Your task to perform on an android device: turn on airplane mode Image 0: 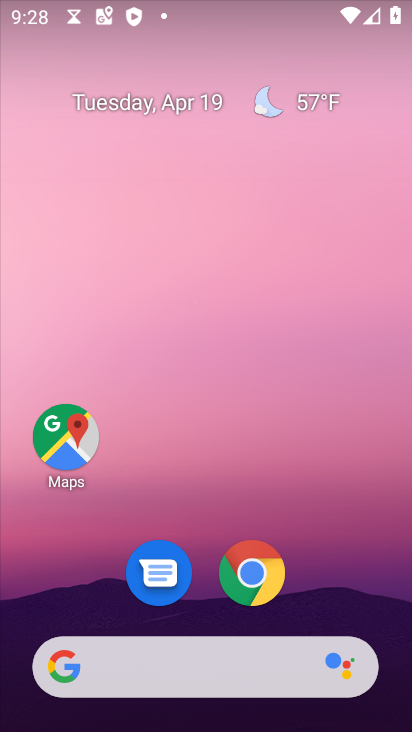
Step 0: click (266, 13)
Your task to perform on an android device: turn on airplane mode Image 1: 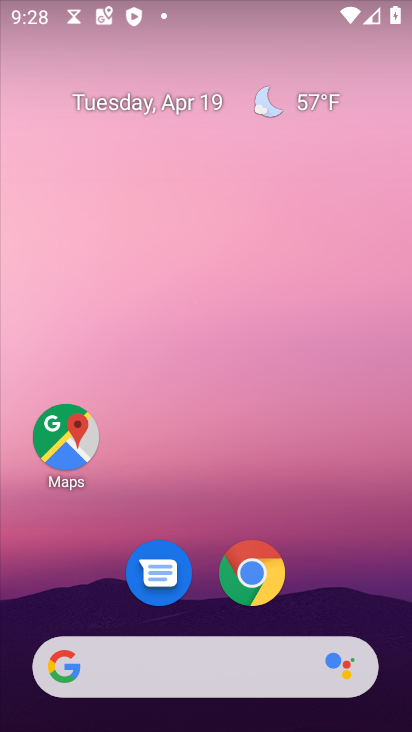
Step 1: drag from (311, 524) to (283, 121)
Your task to perform on an android device: turn on airplane mode Image 2: 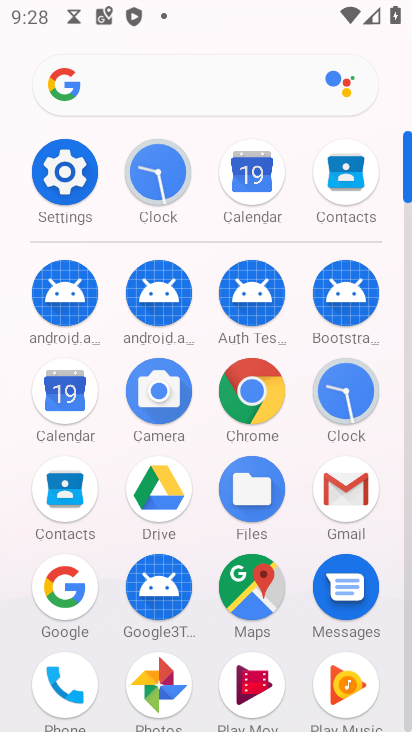
Step 2: click (65, 169)
Your task to perform on an android device: turn on airplane mode Image 3: 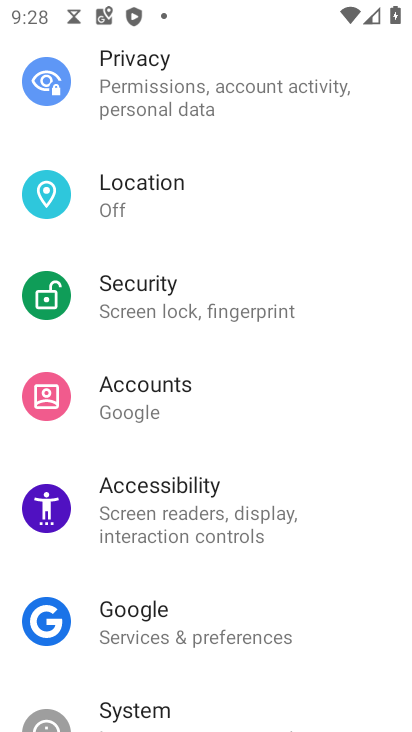
Step 3: drag from (315, 202) to (277, 558)
Your task to perform on an android device: turn on airplane mode Image 4: 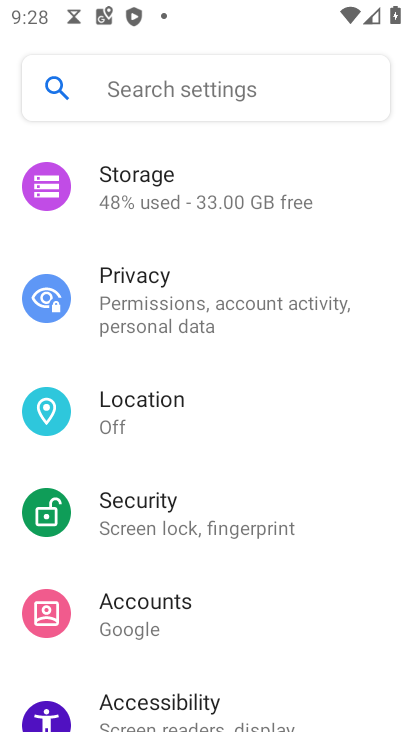
Step 4: drag from (243, 241) to (197, 571)
Your task to perform on an android device: turn on airplane mode Image 5: 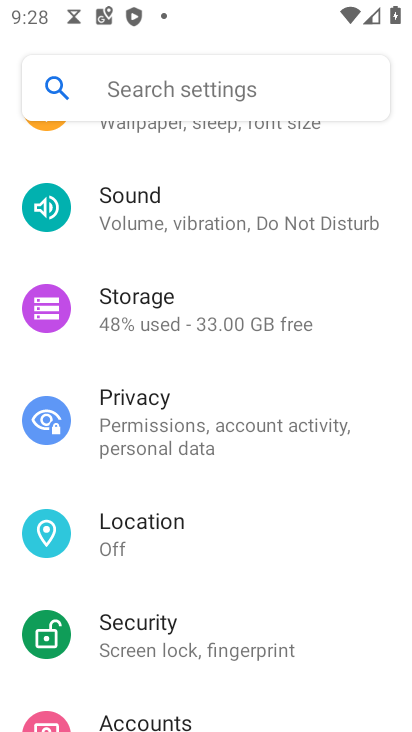
Step 5: drag from (227, 189) to (175, 652)
Your task to perform on an android device: turn on airplane mode Image 6: 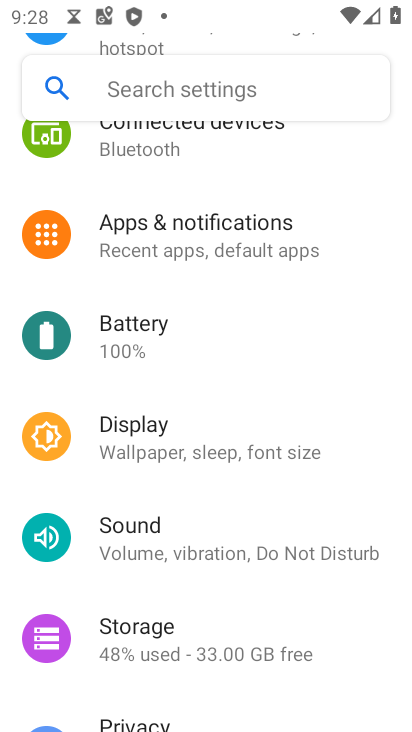
Step 6: drag from (206, 230) to (181, 610)
Your task to perform on an android device: turn on airplane mode Image 7: 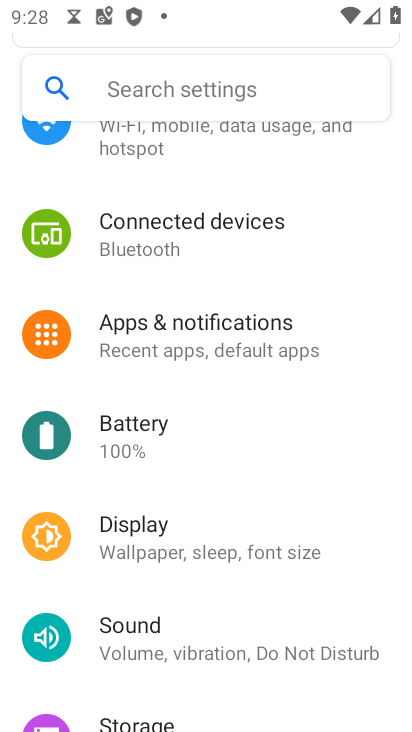
Step 7: click (216, 138)
Your task to perform on an android device: turn on airplane mode Image 8: 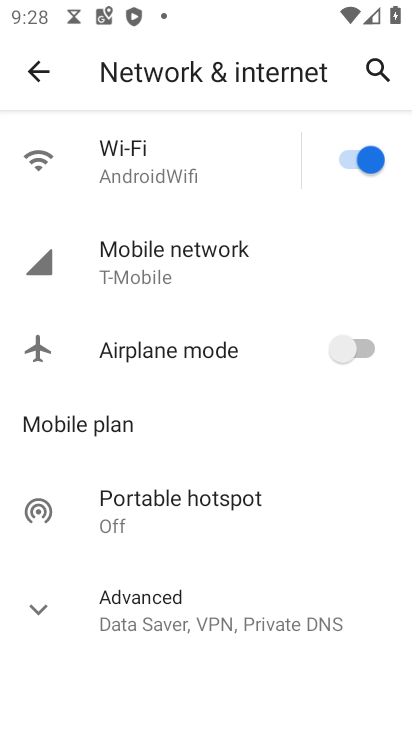
Step 8: click (362, 351)
Your task to perform on an android device: turn on airplane mode Image 9: 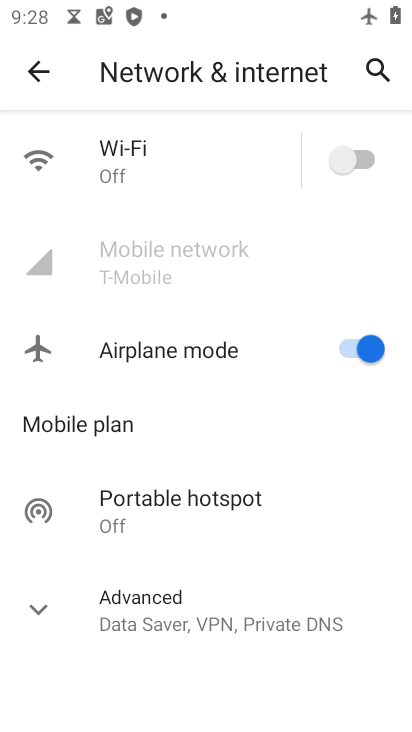
Step 9: task complete